Your task to perform on an android device: Open Google Image 0: 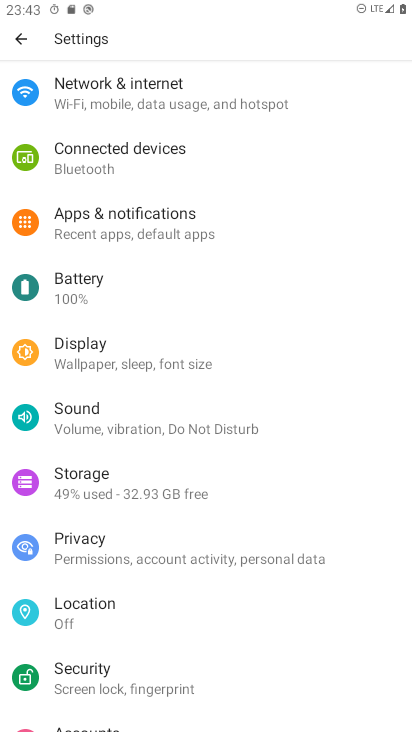
Step 0: press home button
Your task to perform on an android device: Open Google Image 1: 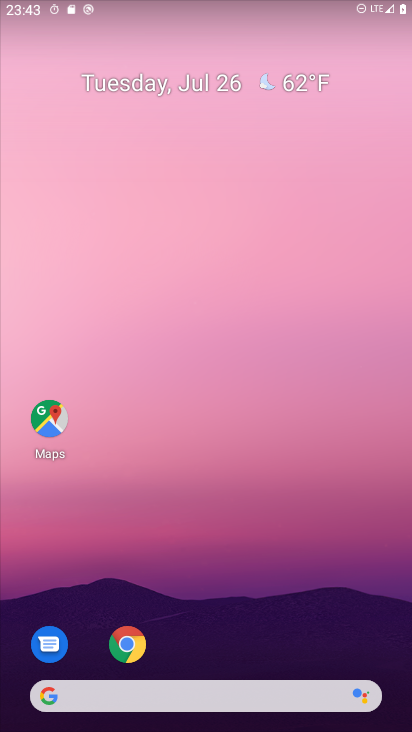
Step 1: drag from (220, 665) to (221, 10)
Your task to perform on an android device: Open Google Image 2: 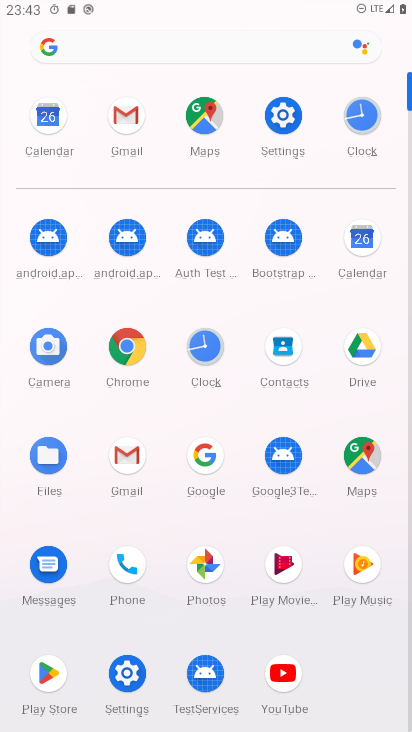
Step 2: click (202, 462)
Your task to perform on an android device: Open Google Image 3: 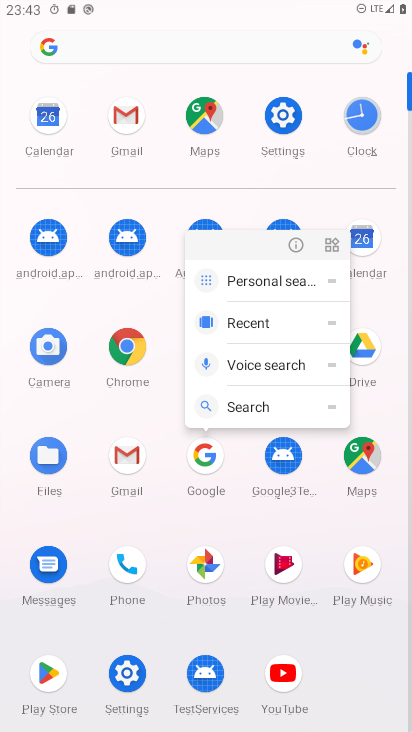
Step 3: click (202, 462)
Your task to perform on an android device: Open Google Image 4: 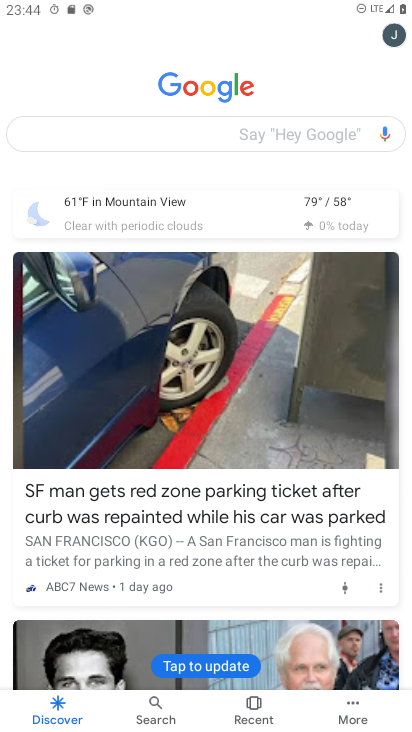
Step 4: task complete